Your task to perform on an android device: delete the emails in spam in the gmail app Image 0: 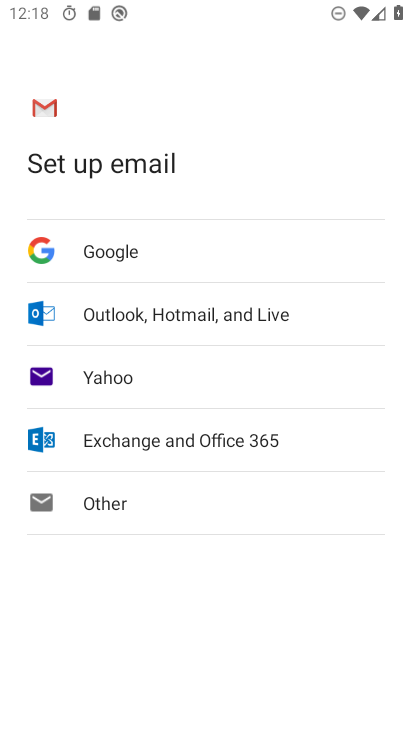
Step 0: press home button
Your task to perform on an android device: delete the emails in spam in the gmail app Image 1: 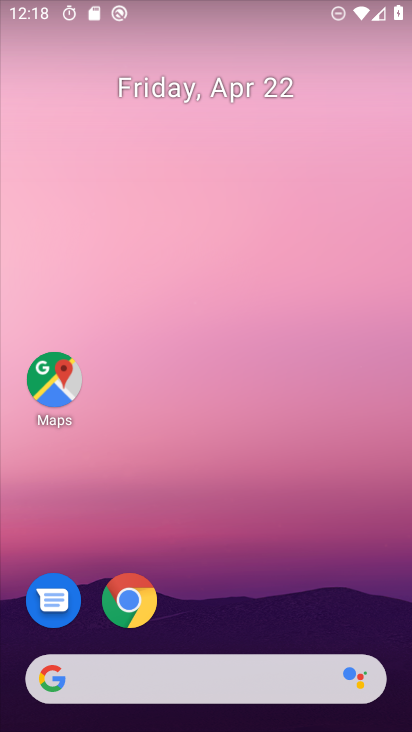
Step 1: drag from (204, 609) to (242, 18)
Your task to perform on an android device: delete the emails in spam in the gmail app Image 2: 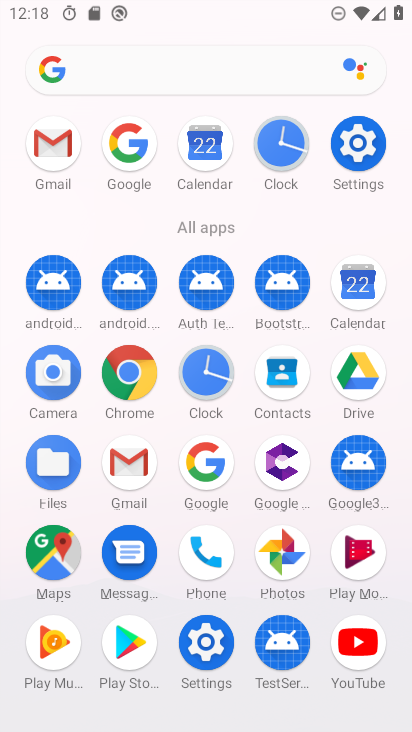
Step 2: click (53, 145)
Your task to perform on an android device: delete the emails in spam in the gmail app Image 3: 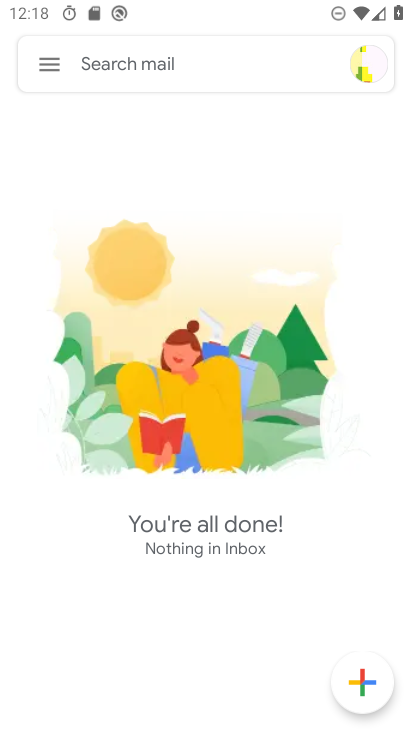
Step 3: click (51, 62)
Your task to perform on an android device: delete the emails in spam in the gmail app Image 4: 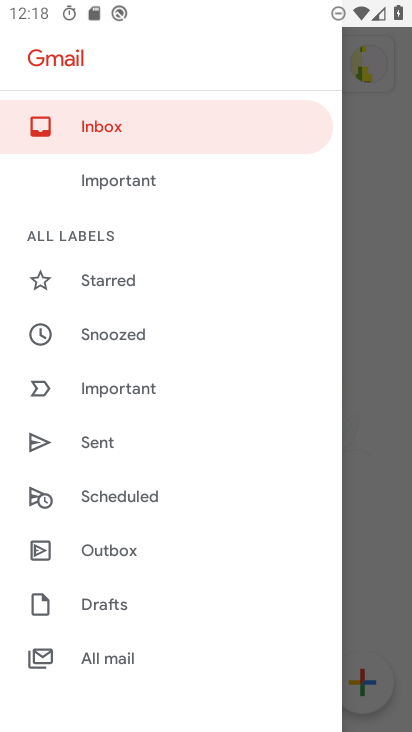
Step 4: drag from (146, 549) to (155, 453)
Your task to perform on an android device: delete the emails in spam in the gmail app Image 5: 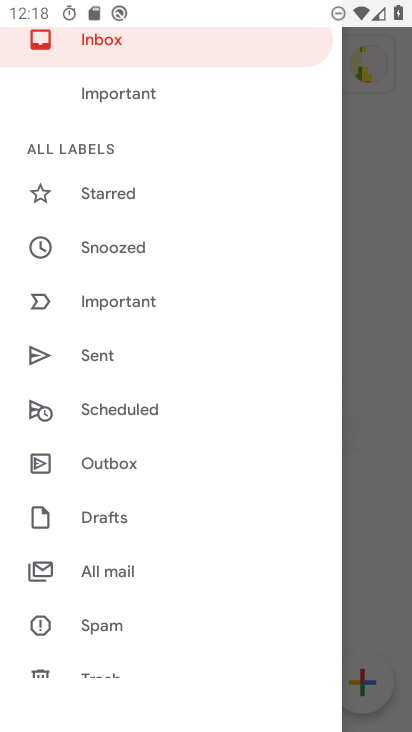
Step 5: drag from (143, 595) to (179, 522)
Your task to perform on an android device: delete the emails in spam in the gmail app Image 6: 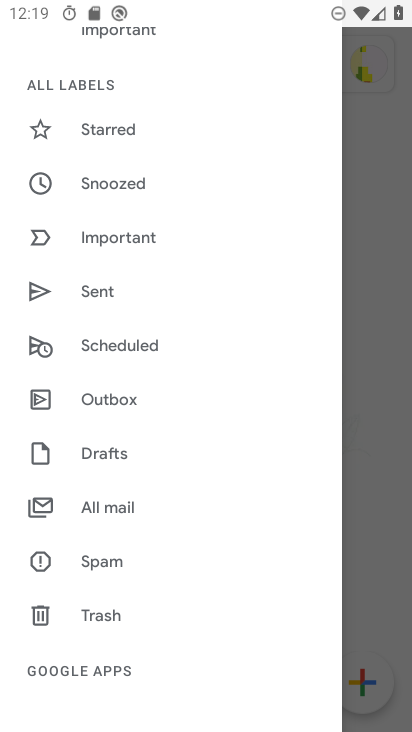
Step 6: click (113, 568)
Your task to perform on an android device: delete the emails in spam in the gmail app Image 7: 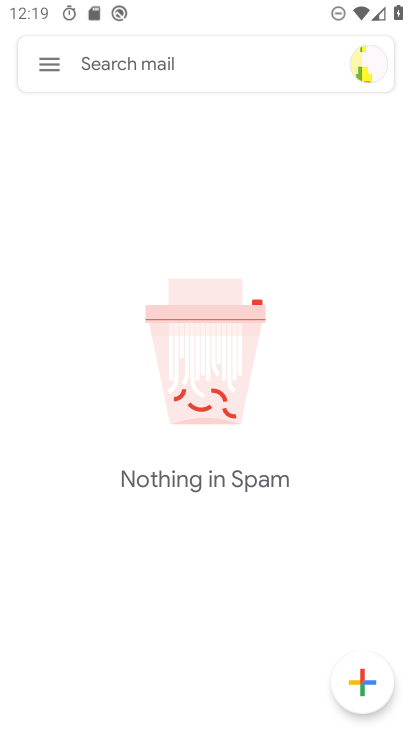
Step 7: task complete